Your task to perform on an android device: Search for vegetarian restaurants on Maps Image 0: 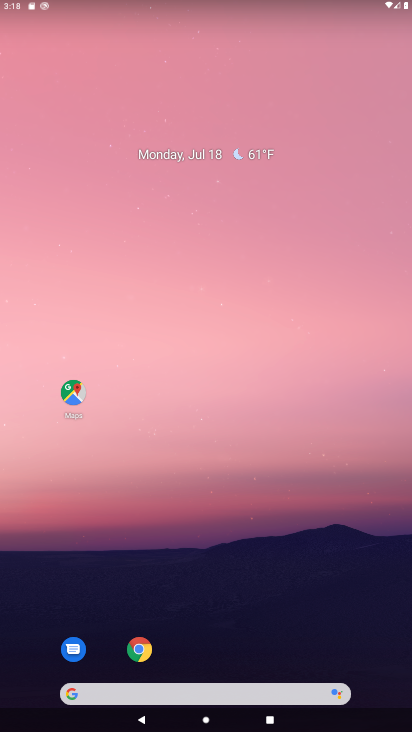
Step 0: click (70, 395)
Your task to perform on an android device: Search for vegetarian restaurants on Maps Image 1: 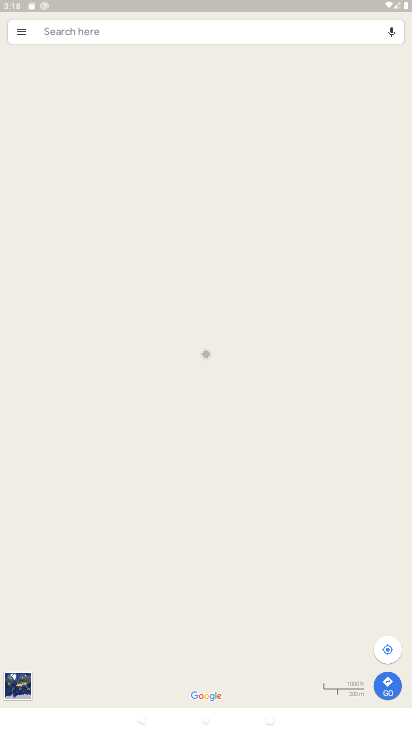
Step 1: click (175, 34)
Your task to perform on an android device: Search for vegetarian restaurants on Maps Image 2: 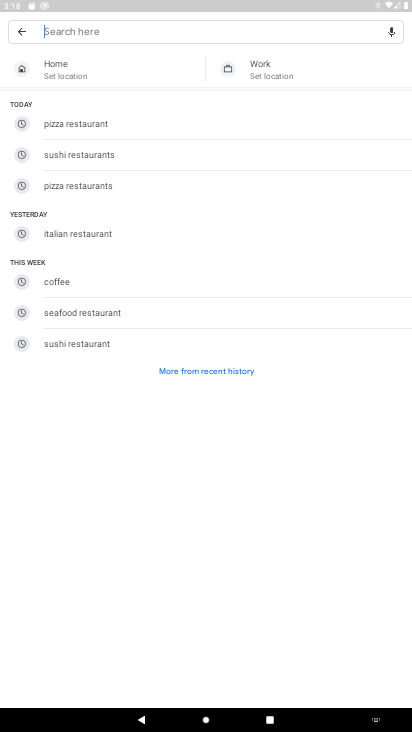
Step 2: type "vegetarian restaurants"
Your task to perform on an android device: Search for vegetarian restaurants on Maps Image 3: 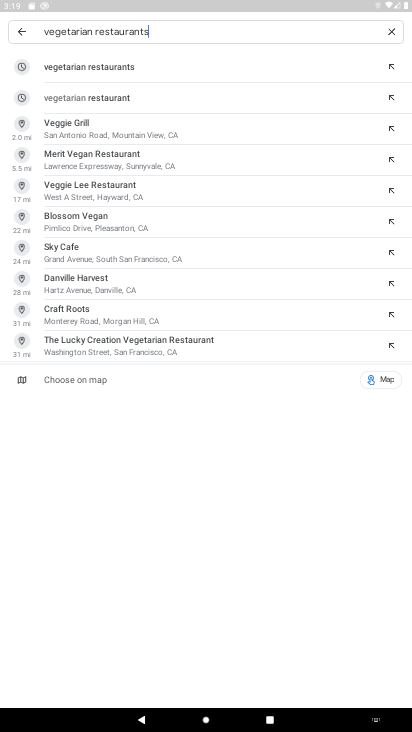
Step 3: click (158, 60)
Your task to perform on an android device: Search for vegetarian restaurants on Maps Image 4: 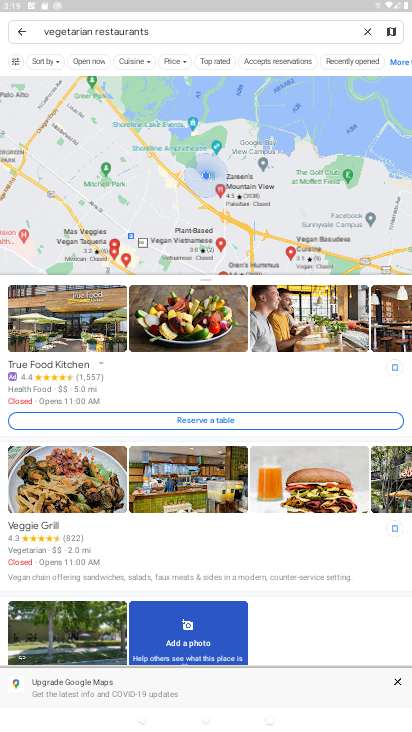
Step 4: task complete